Your task to perform on an android device: Open Google Chrome and click the shortcut for Amazon.com Image 0: 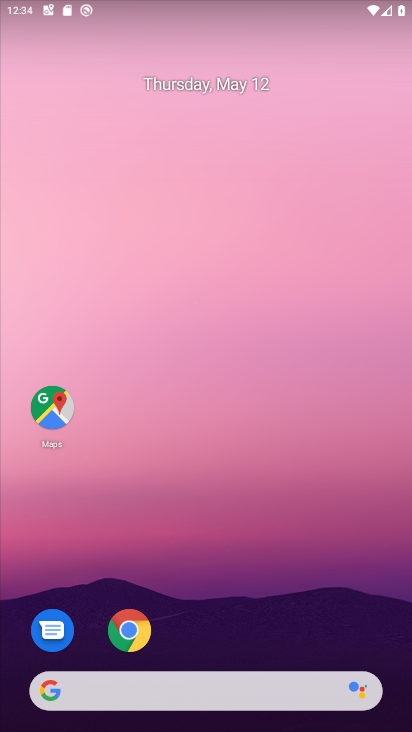
Step 0: drag from (291, 615) to (265, 38)
Your task to perform on an android device: Open Google Chrome and click the shortcut for Amazon.com Image 1: 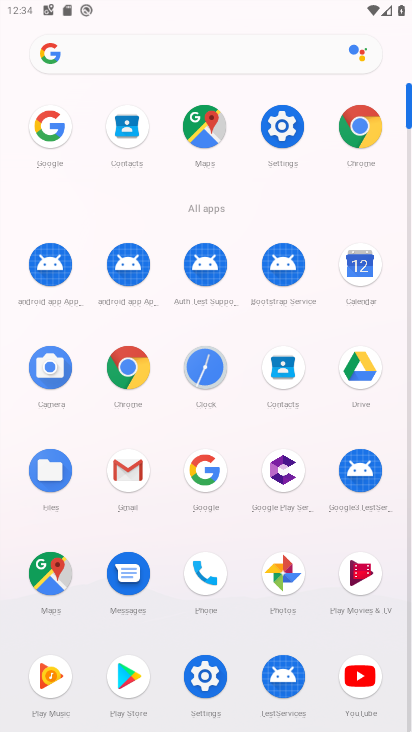
Step 1: click (134, 369)
Your task to perform on an android device: Open Google Chrome and click the shortcut for Amazon.com Image 2: 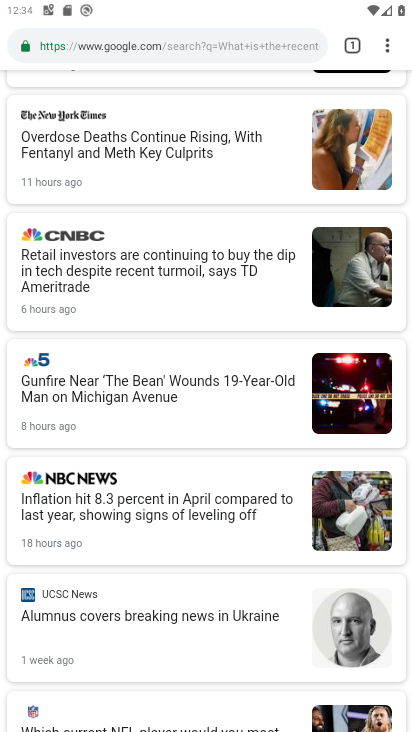
Step 2: drag from (247, 136) to (242, 541)
Your task to perform on an android device: Open Google Chrome and click the shortcut for Amazon.com Image 3: 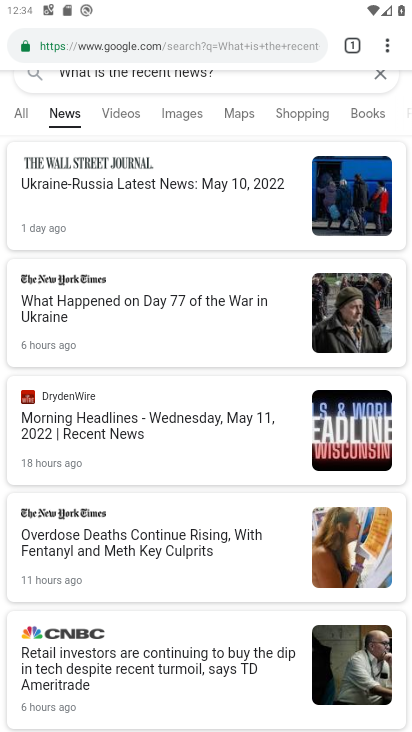
Step 3: drag from (192, 168) to (196, 553)
Your task to perform on an android device: Open Google Chrome and click the shortcut for Amazon.com Image 4: 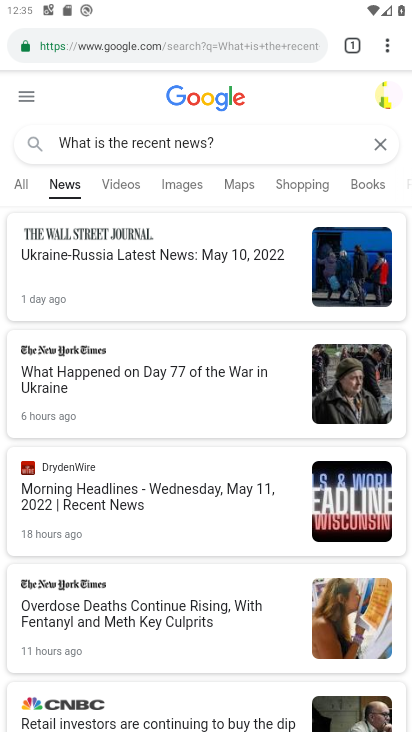
Step 4: drag from (387, 40) to (219, 106)
Your task to perform on an android device: Open Google Chrome and click the shortcut for Amazon.com Image 5: 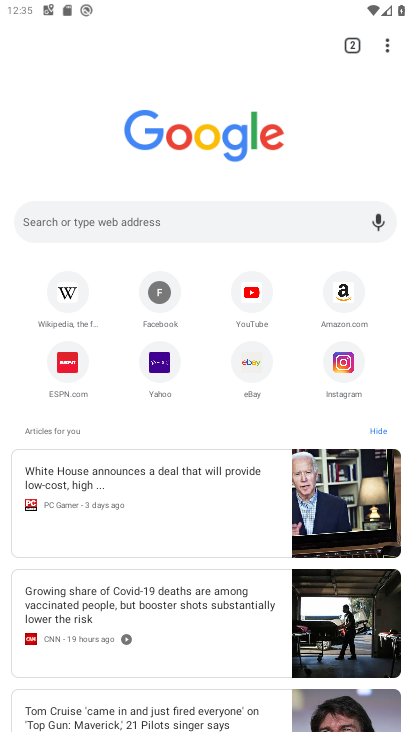
Step 5: click (340, 292)
Your task to perform on an android device: Open Google Chrome and click the shortcut for Amazon.com Image 6: 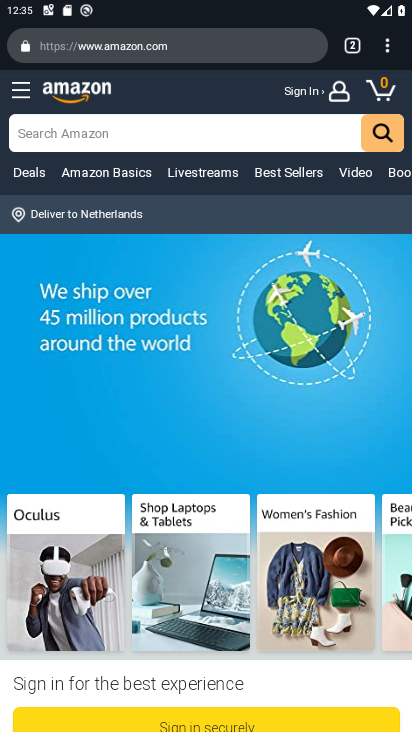
Step 6: task complete